Your task to perform on an android device: turn off javascript in the chrome app Image 0: 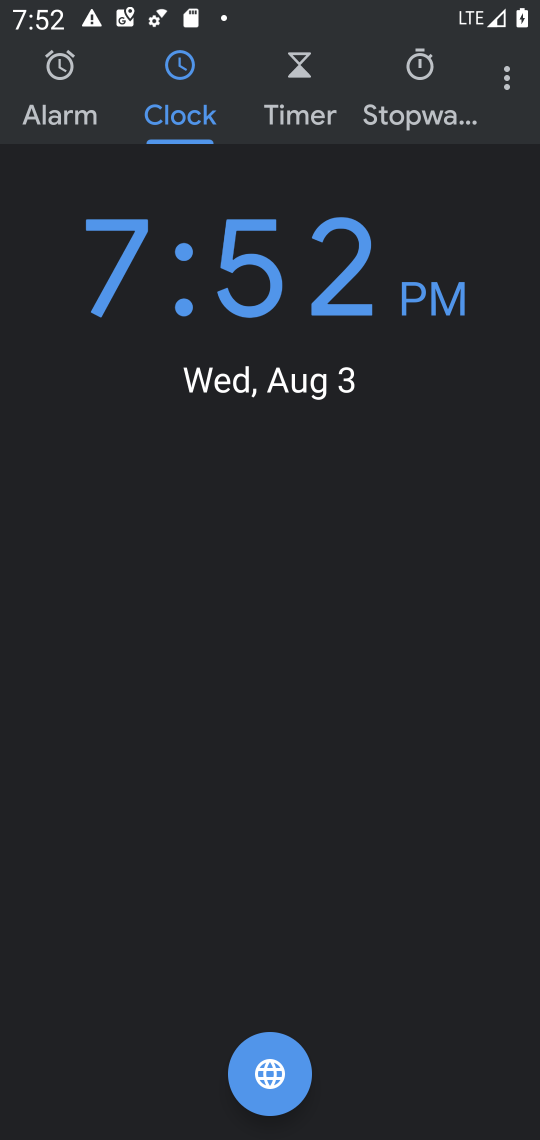
Step 0: press home button
Your task to perform on an android device: turn off javascript in the chrome app Image 1: 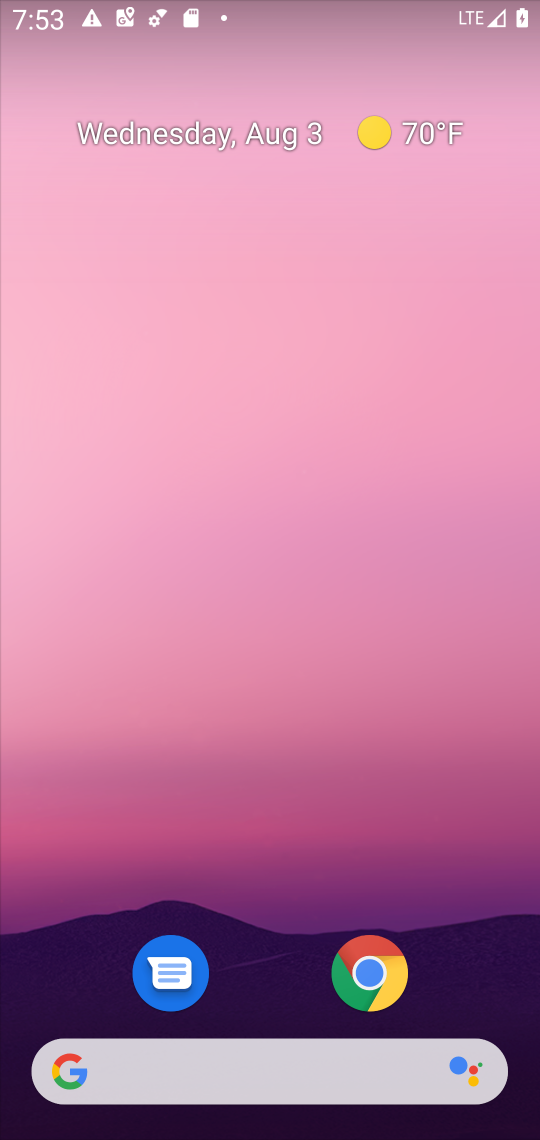
Step 1: click (362, 962)
Your task to perform on an android device: turn off javascript in the chrome app Image 2: 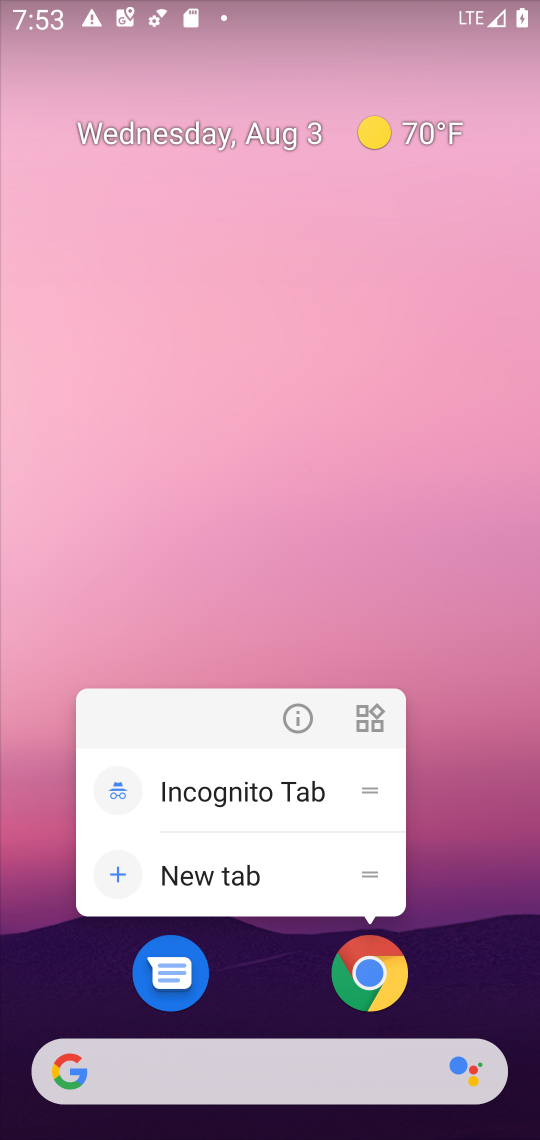
Step 2: click (366, 962)
Your task to perform on an android device: turn off javascript in the chrome app Image 3: 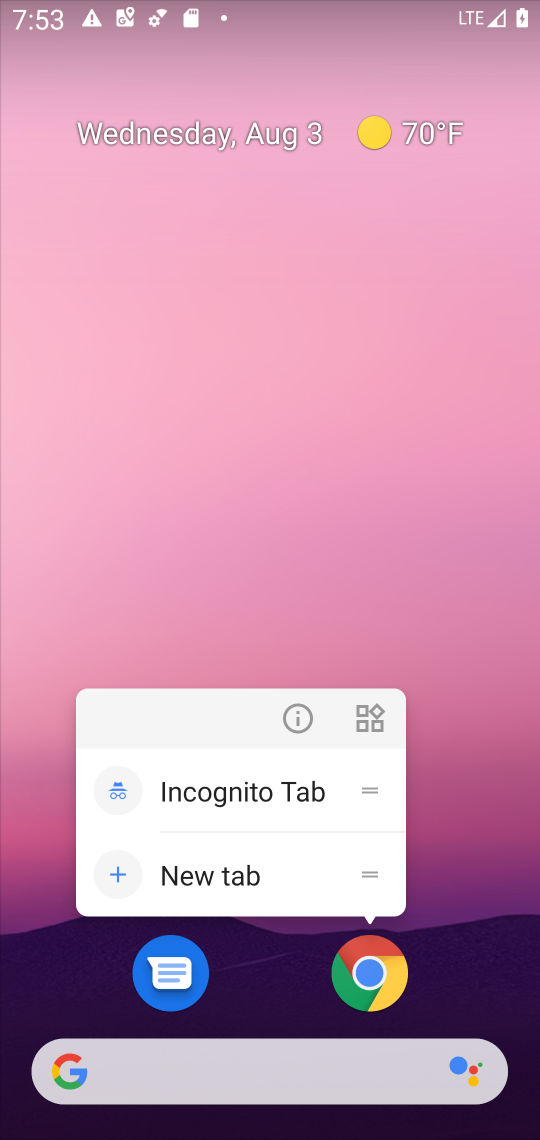
Step 3: click (447, 986)
Your task to perform on an android device: turn off javascript in the chrome app Image 4: 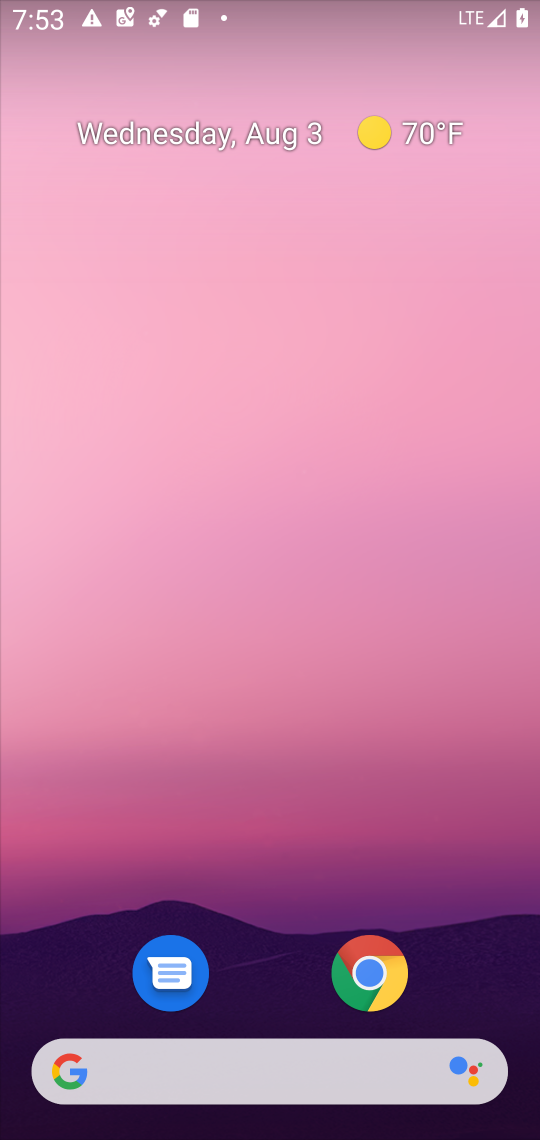
Step 4: drag from (449, 997) to (485, 95)
Your task to perform on an android device: turn off javascript in the chrome app Image 5: 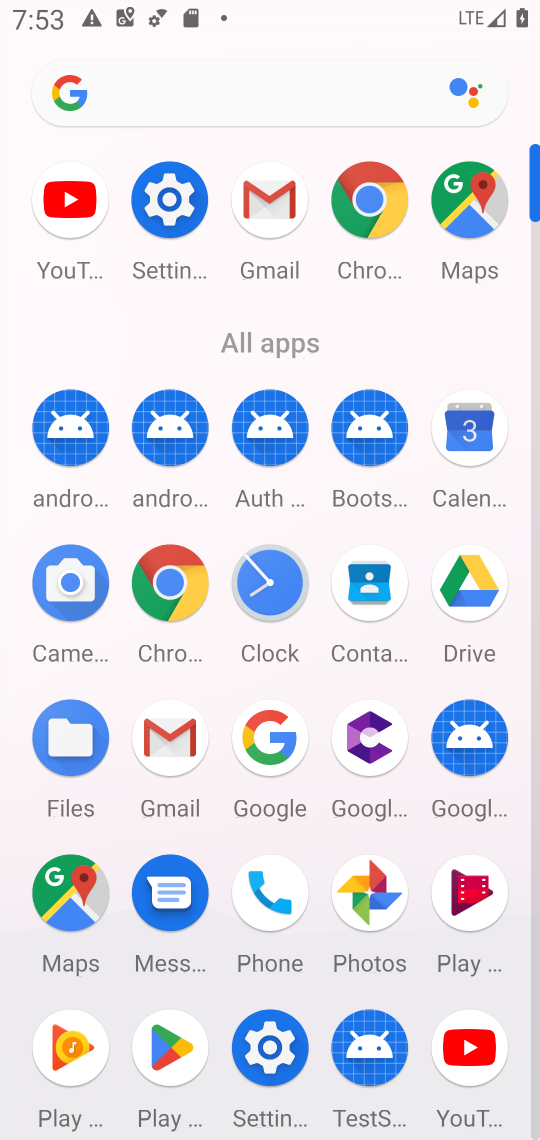
Step 5: click (365, 183)
Your task to perform on an android device: turn off javascript in the chrome app Image 6: 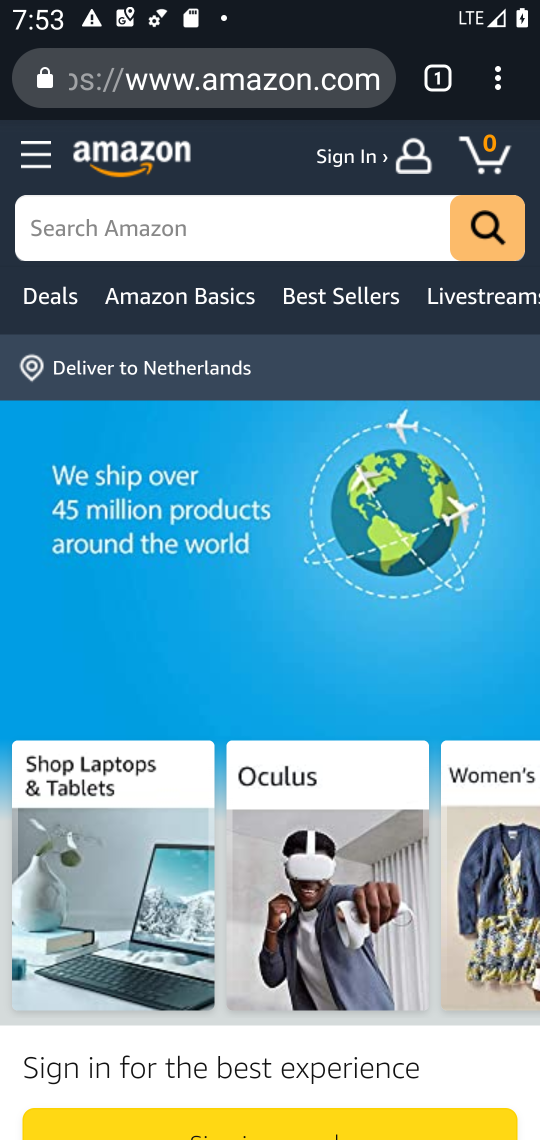
Step 6: click (501, 75)
Your task to perform on an android device: turn off javascript in the chrome app Image 7: 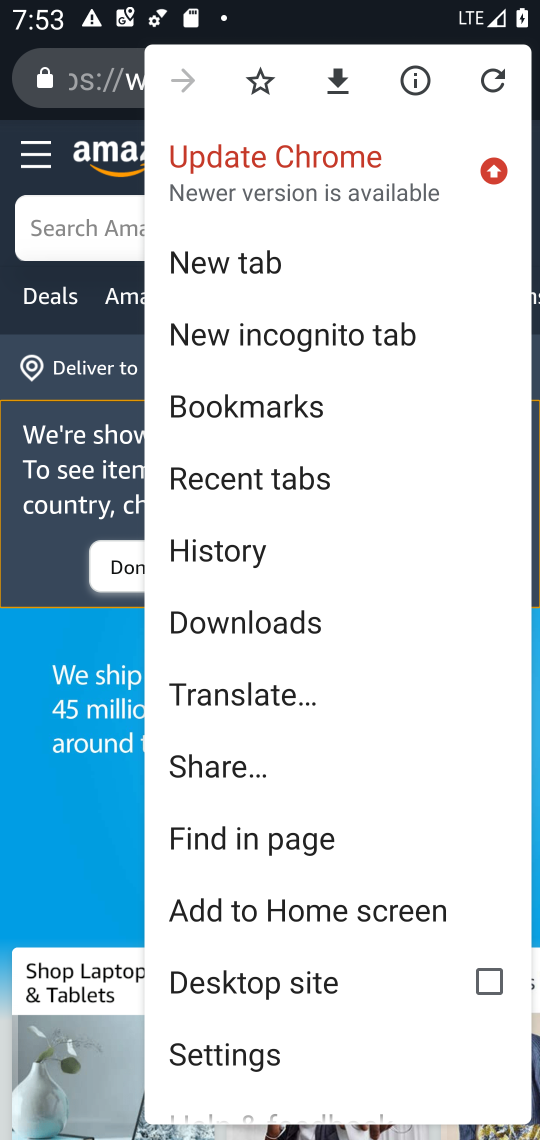
Step 7: click (289, 1050)
Your task to perform on an android device: turn off javascript in the chrome app Image 8: 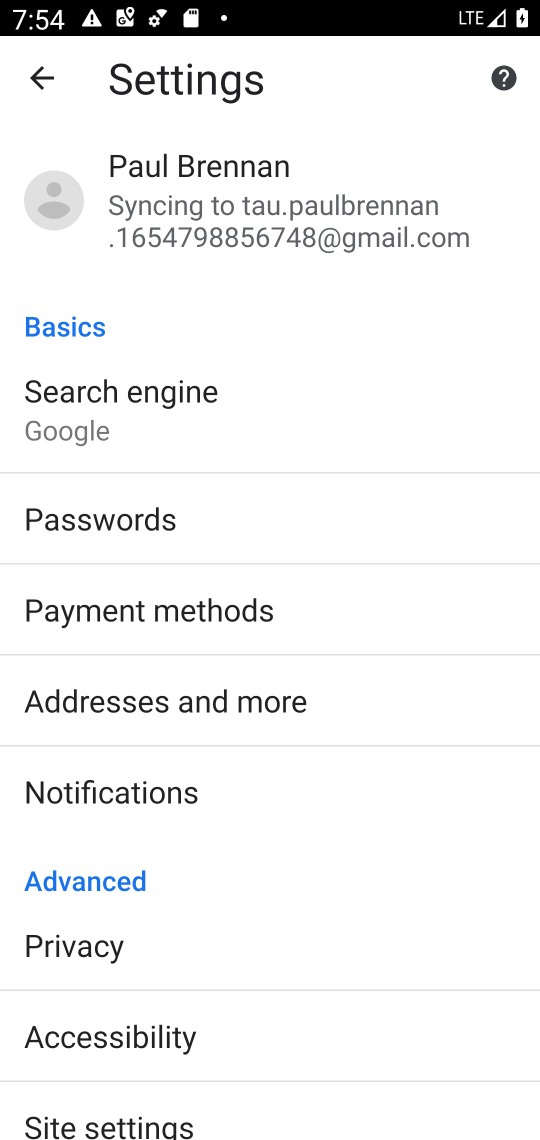
Step 8: click (213, 1114)
Your task to perform on an android device: turn off javascript in the chrome app Image 9: 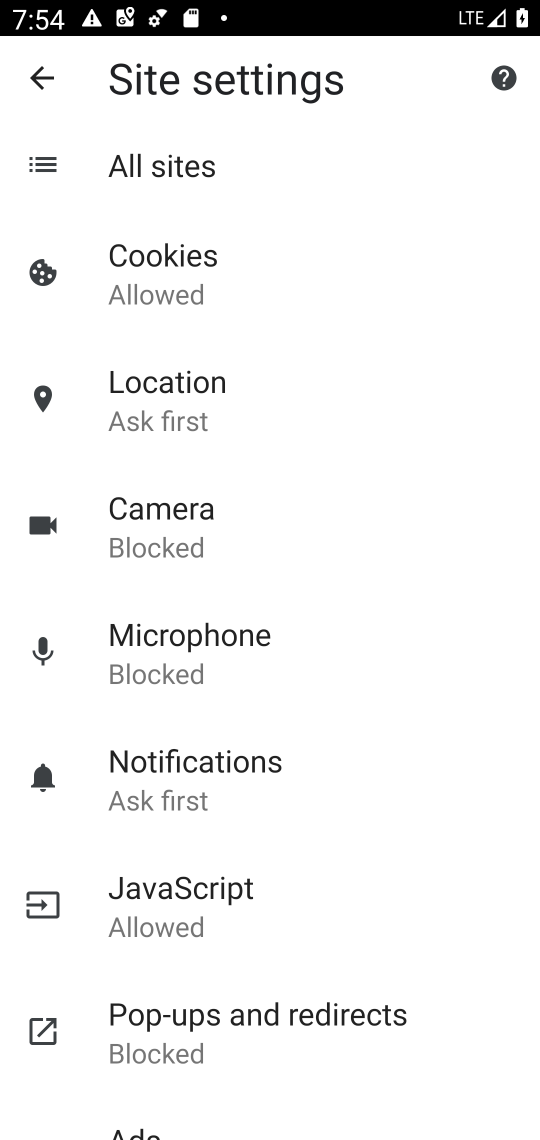
Step 9: click (261, 912)
Your task to perform on an android device: turn off javascript in the chrome app Image 10: 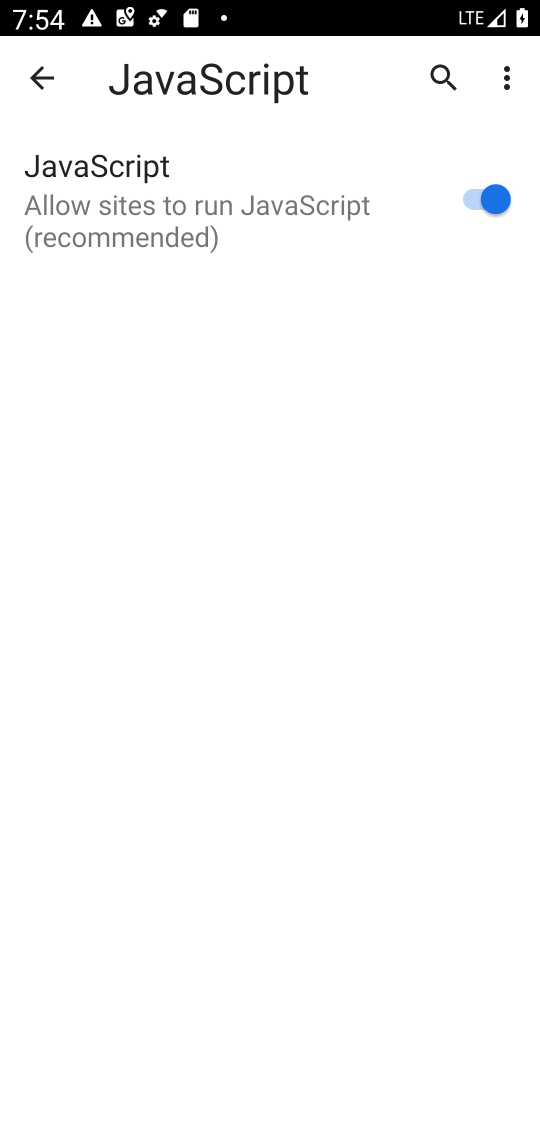
Step 10: click (469, 196)
Your task to perform on an android device: turn off javascript in the chrome app Image 11: 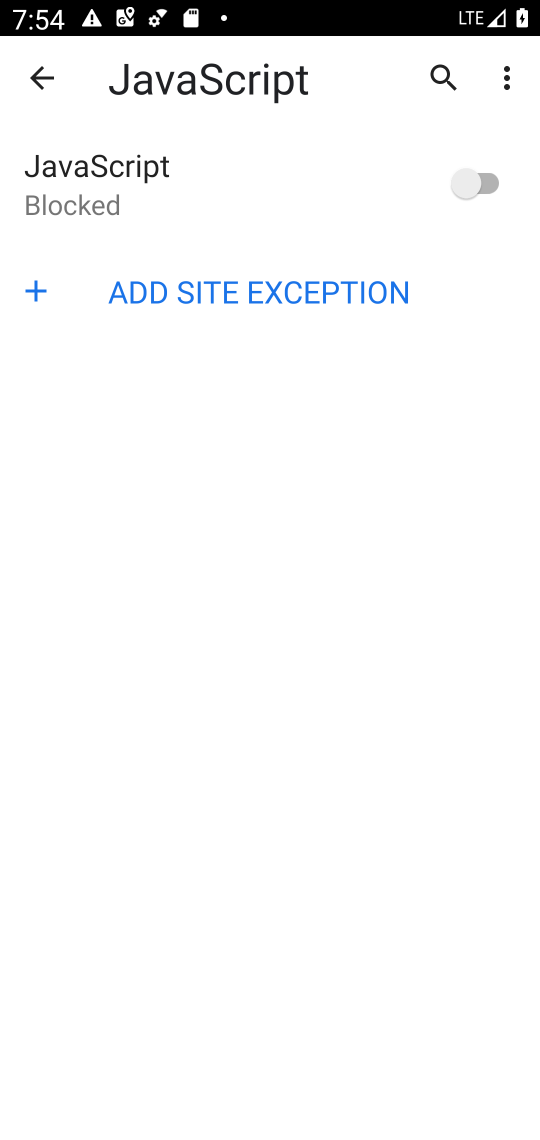
Step 11: task complete